Your task to perform on an android device: change timer sound Image 0: 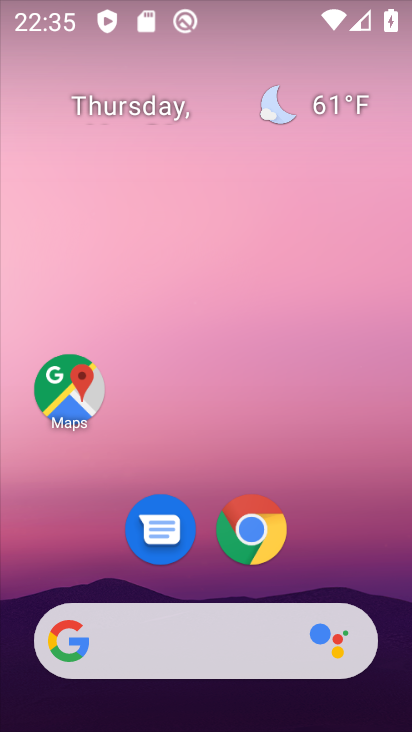
Step 0: drag from (349, 549) to (343, 107)
Your task to perform on an android device: change timer sound Image 1: 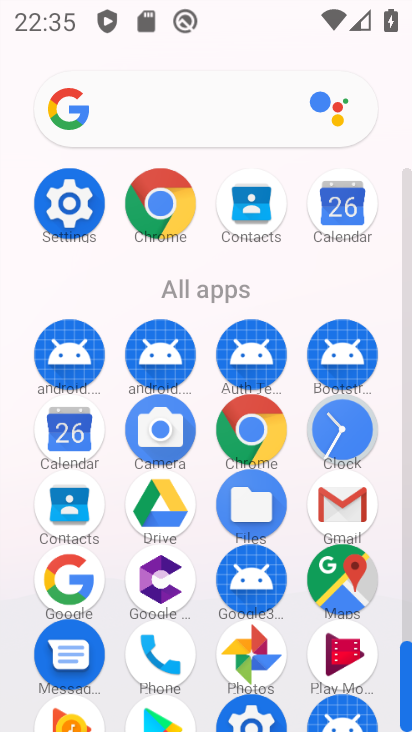
Step 1: click (97, 193)
Your task to perform on an android device: change timer sound Image 2: 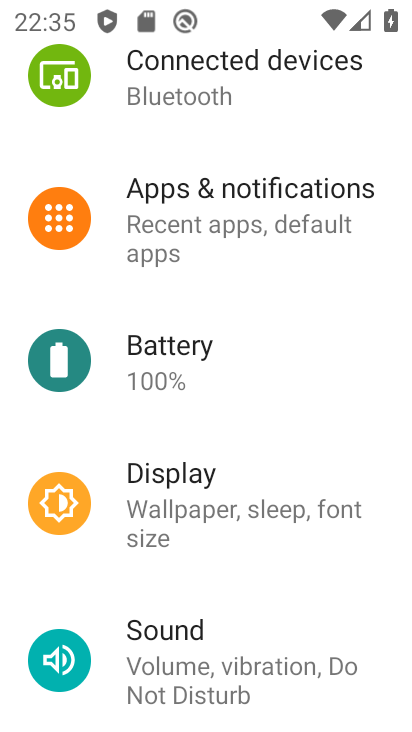
Step 2: click (190, 667)
Your task to perform on an android device: change timer sound Image 3: 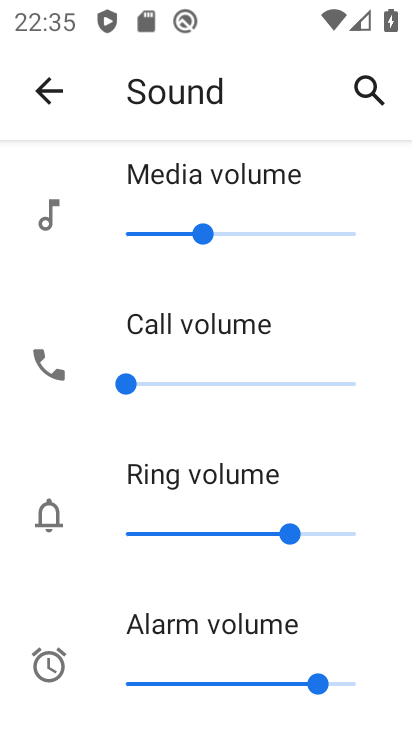
Step 3: press home button
Your task to perform on an android device: change timer sound Image 4: 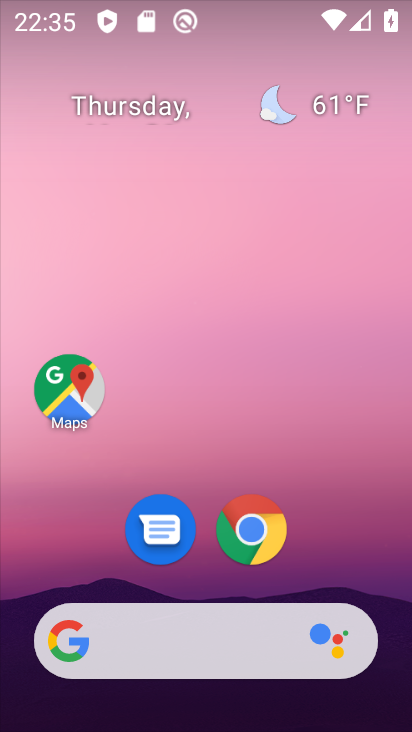
Step 4: drag from (329, 547) to (322, 141)
Your task to perform on an android device: change timer sound Image 5: 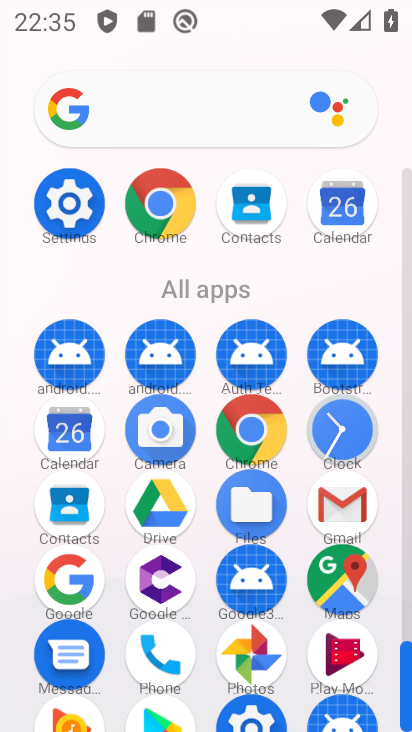
Step 5: click (340, 426)
Your task to perform on an android device: change timer sound Image 6: 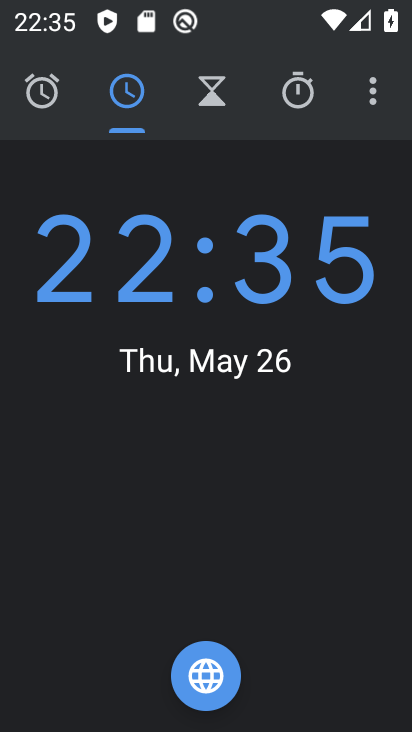
Step 6: click (375, 91)
Your task to perform on an android device: change timer sound Image 7: 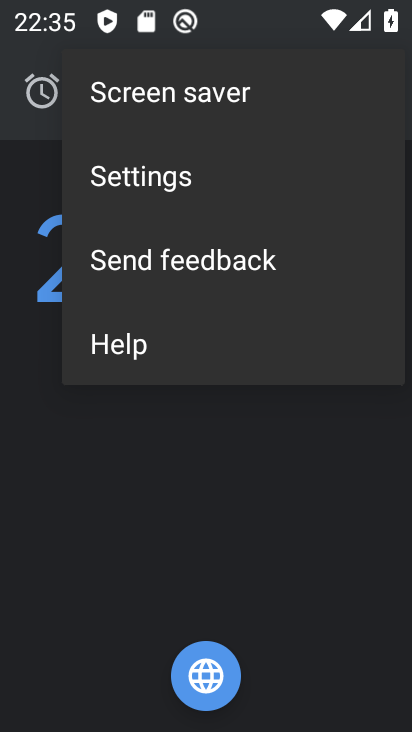
Step 7: click (198, 199)
Your task to perform on an android device: change timer sound Image 8: 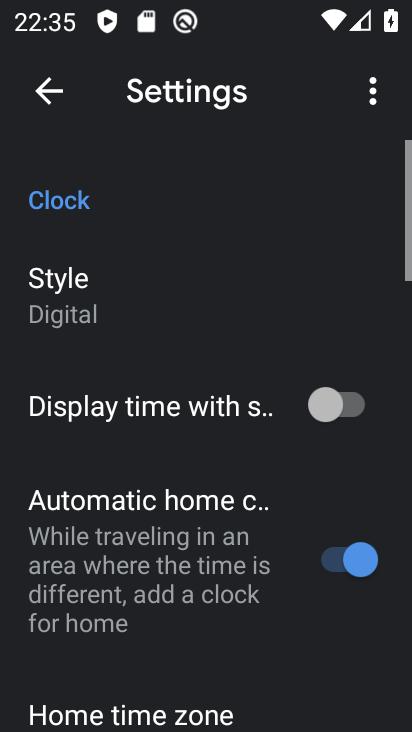
Step 8: drag from (221, 535) to (212, 181)
Your task to perform on an android device: change timer sound Image 9: 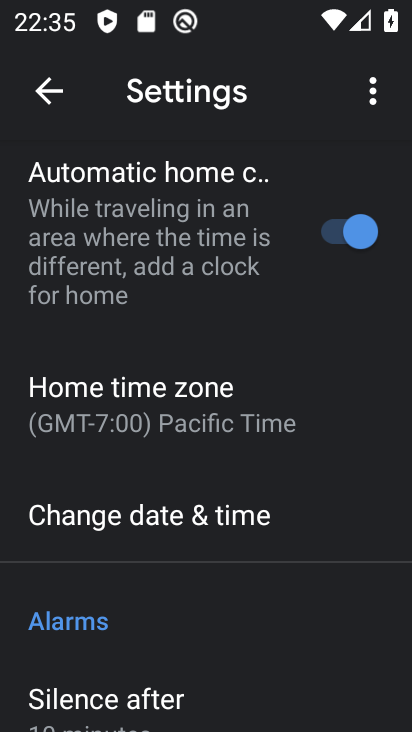
Step 9: drag from (172, 591) to (180, 269)
Your task to perform on an android device: change timer sound Image 10: 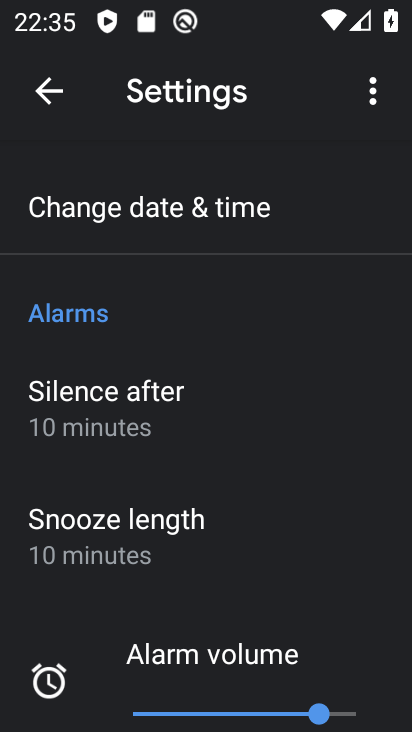
Step 10: click (236, 531)
Your task to perform on an android device: change timer sound Image 11: 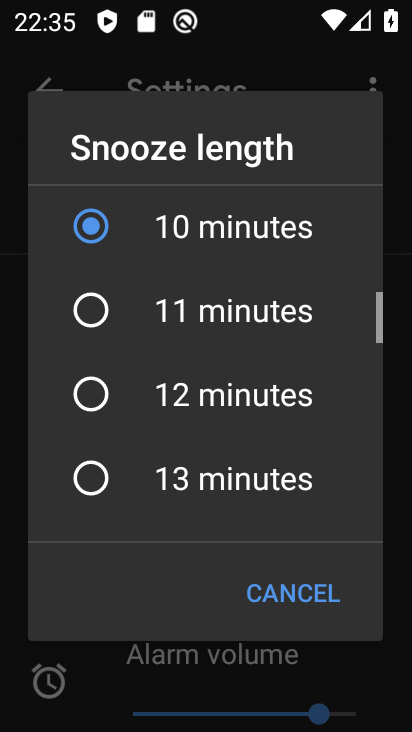
Step 11: click (181, 273)
Your task to perform on an android device: change timer sound Image 12: 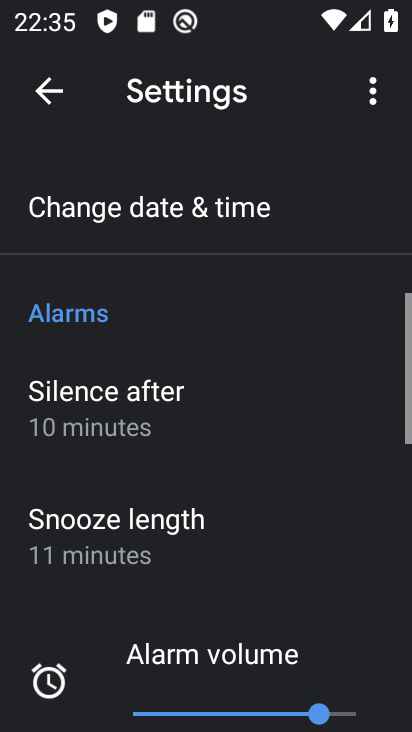
Step 12: task complete